Your task to perform on an android device: toggle javascript in the chrome app Image 0: 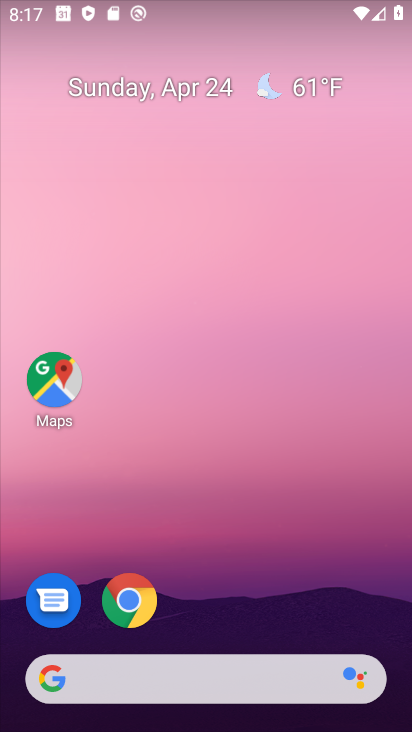
Step 0: drag from (238, 684) to (209, 173)
Your task to perform on an android device: toggle javascript in the chrome app Image 1: 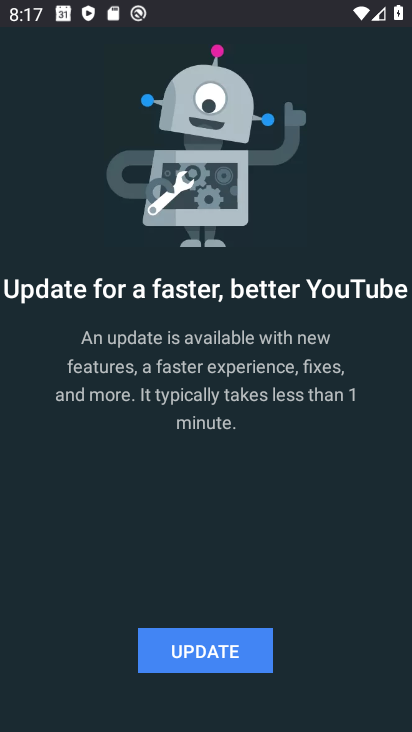
Step 1: press home button
Your task to perform on an android device: toggle javascript in the chrome app Image 2: 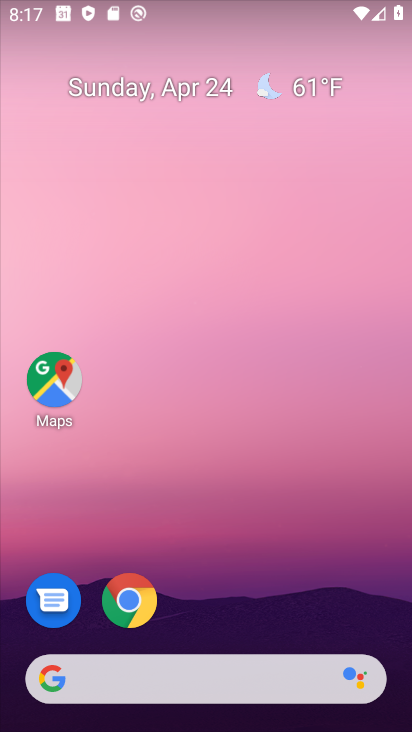
Step 2: click (127, 599)
Your task to perform on an android device: toggle javascript in the chrome app Image 3: 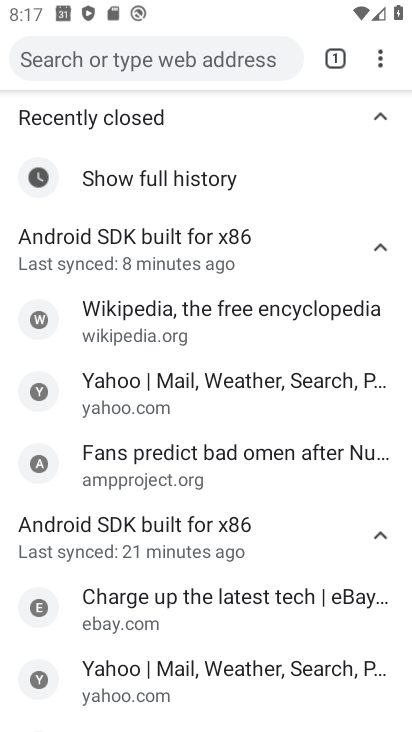
Step 3: drag from (381, 59) to (197, 571)
Your task to perform on an android device: toggle javascript in the chrome app Image 4: 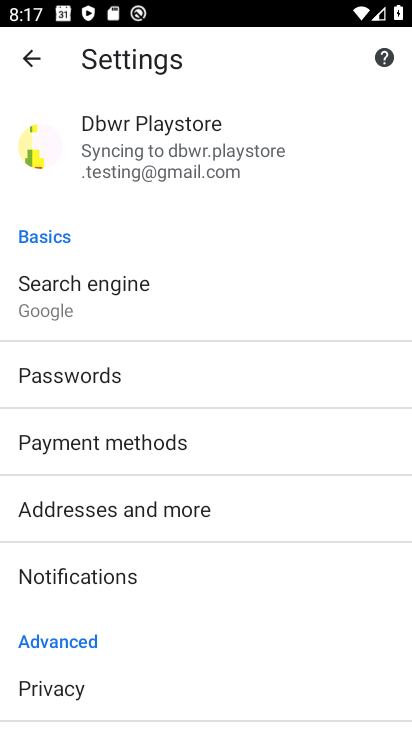
Step 4: drag from (135, 656) to (138, 431)
Your task to perform on an android device: toggle javascript in the chrome app Image 5: 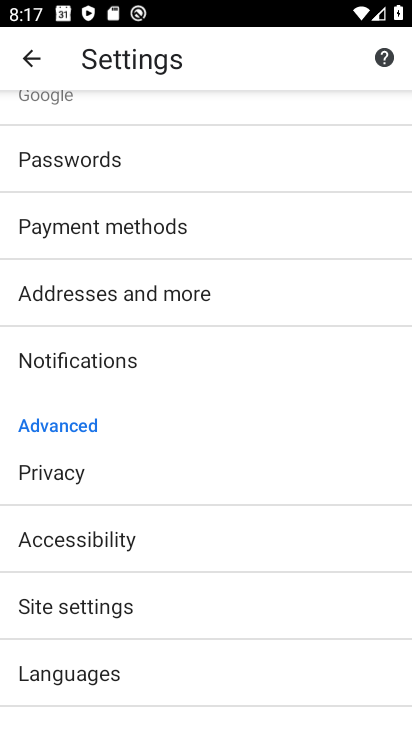
Step 5: click (88, 599)
Your task to perform on an android device: toggle javascript in the chrome app Image 6: 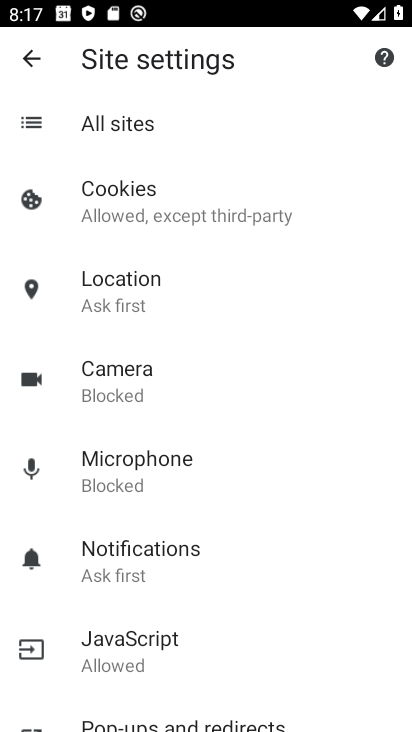
Step 6: click (135, 645)
Your task to perform on an android device: toggle javascript in the chrome app Image 7: 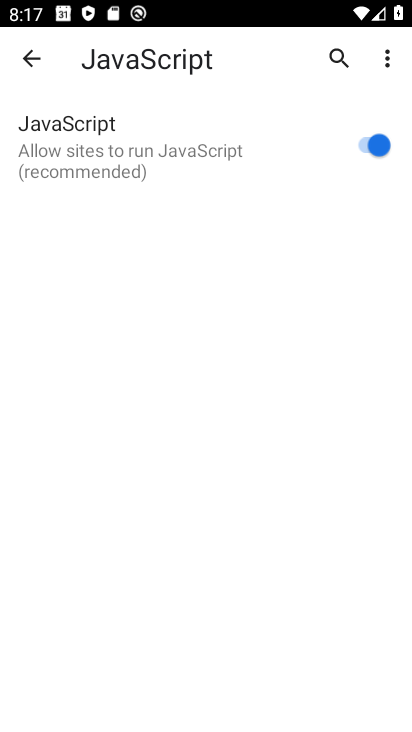
Step 7: click (359, 144)
Your task to perform on an android device: toggle javascript in the chrome app Image 8: 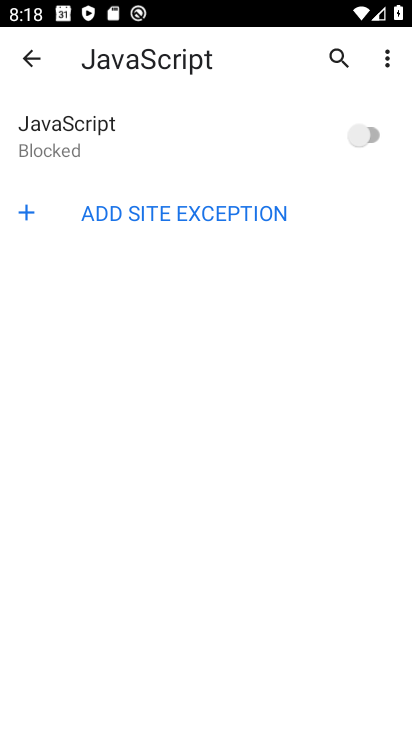
Step 8: task complete